Your task to perform on an android device: toggle translation in the chrome app Image 0: 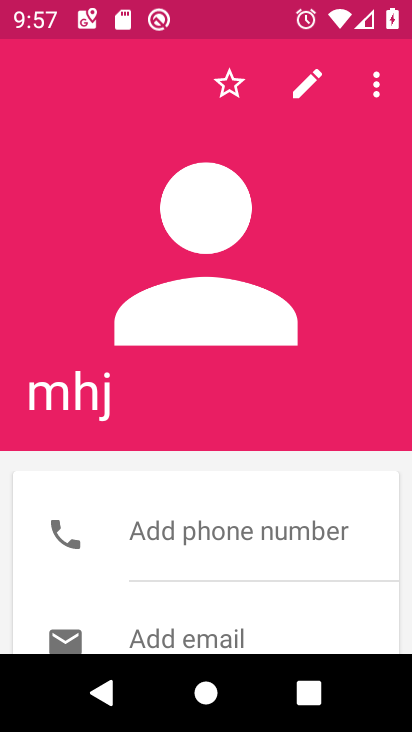
Step 0: press home button
Your task to perform on an android device: toggle translation in the chrome app Image 1: 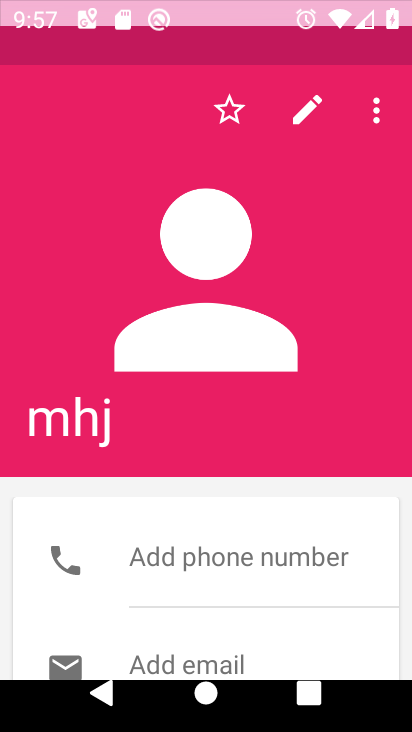
Step 1: drag from (285, 590) to (250, 53)
Your task to perform on an android device: toggle translation in the chrome app Image 2: 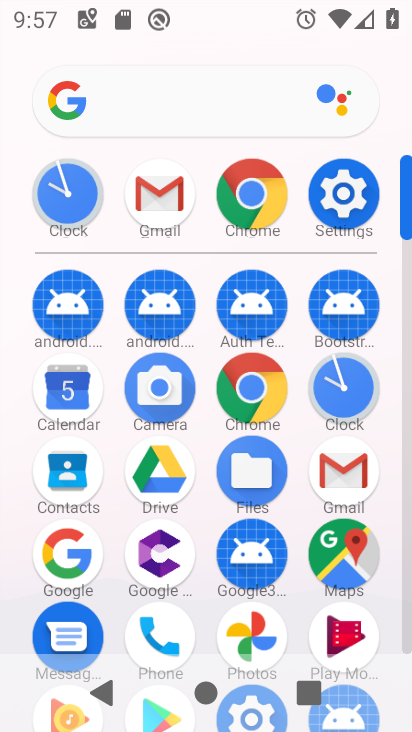
Step 2: click (214, 373)
Your task to perform on an android device: toggle translation in the chrome app Image 3: 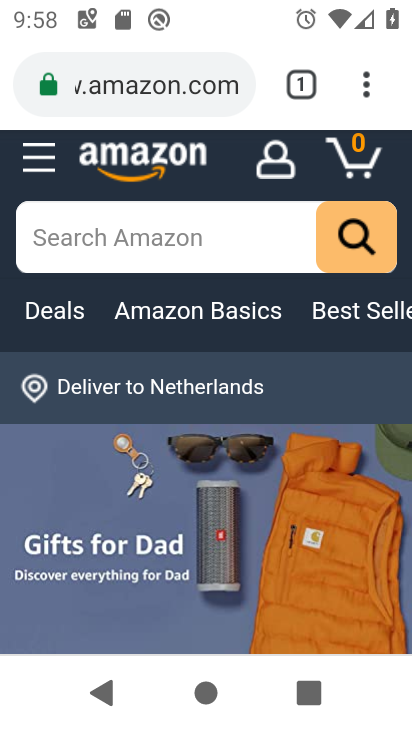
Step 3: click (375, 101)
Your task to perform on an android device: toggle translation in the chrome app Image 4: 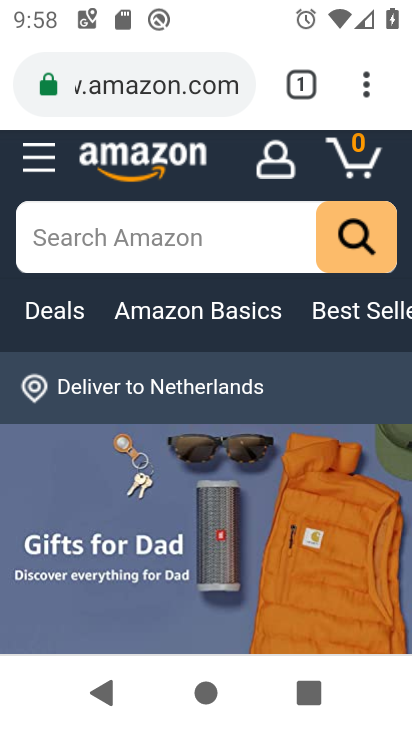
Step 4: click (367, 69)
Your task to perform on an android device: toggle translation in the chrome app Image 5: 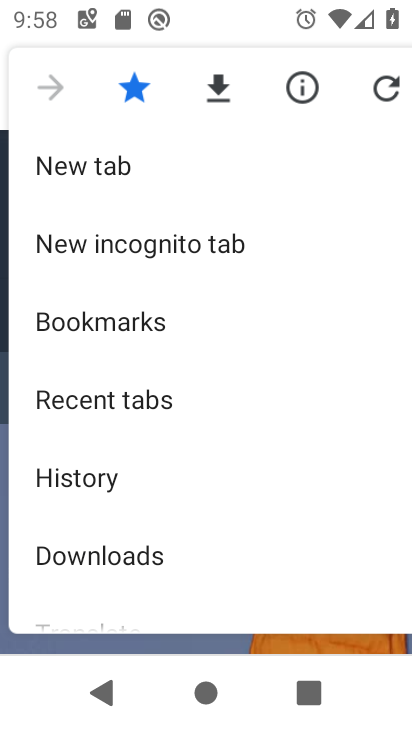
Step 5: drag from (142, 479) to (232, 115)
Your task to perform on an android device: toggle translation in the chrome app Image 6: 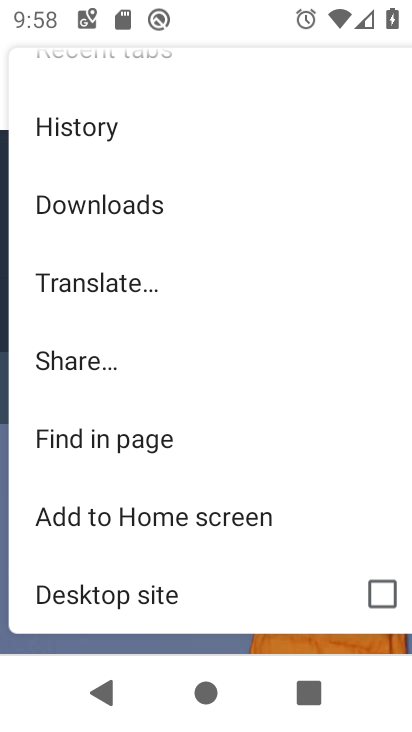
Step 6: drag from (198, 513) to (307, 103)
Your task to perform on an android device: toggle translation in the chrome app Image 7: 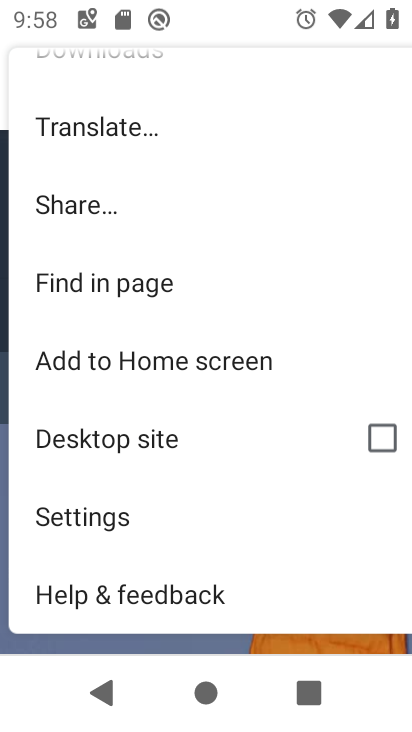
Step 7: click (113, 517)
Your task to perform on an android device: toggle translation in the chrome app Image 8: 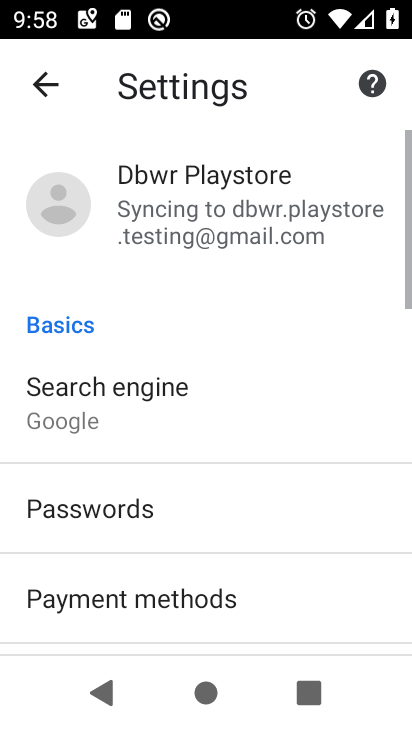
Step 8: drag from (199, 473) to (271, 64)
Your task to perform on an android device: toggle translation in the chrome app Image 9: 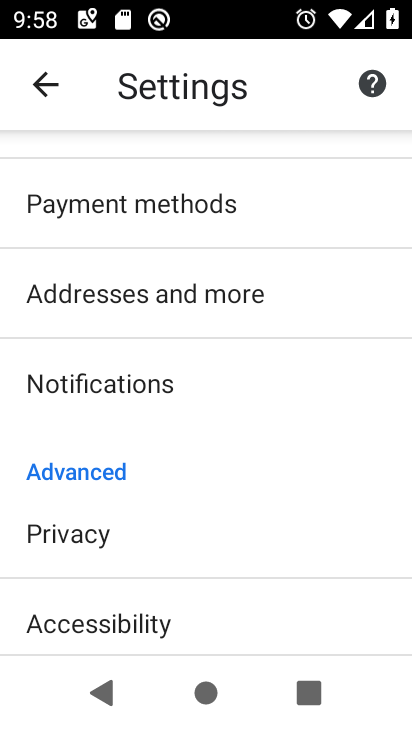
Step 9: drag from (137, 579) to (125, 76)
Your task to perform on an android device: toggle translation in the chrome app Image 10: 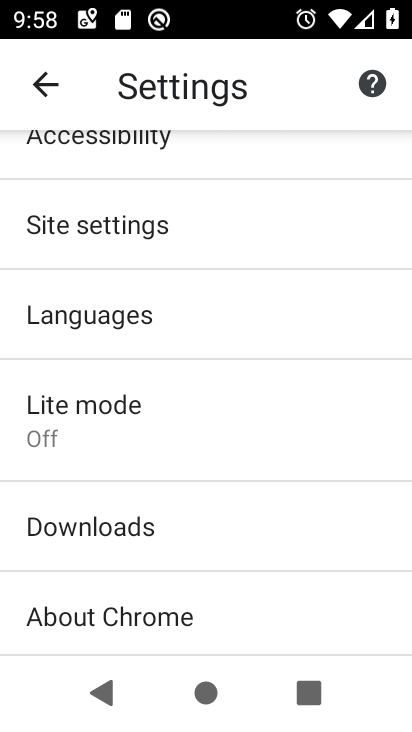
Step 10: click (149, 327)
Your task to perform on an android device: toggle translation in the chrome app Image 11: 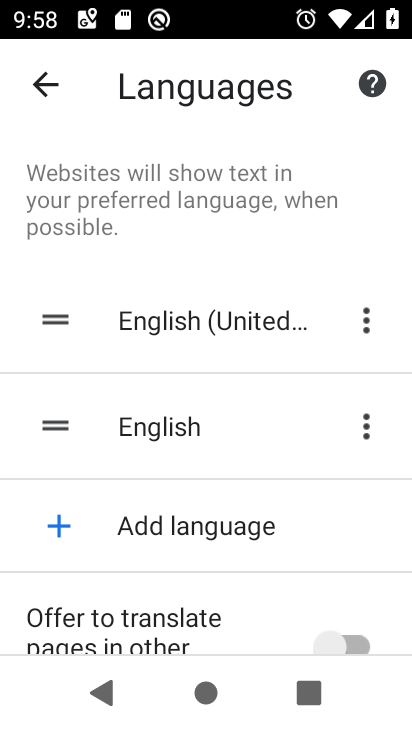
Step 11: click (306, 622)
Your task to perform on an android device: toggle translation in the chrome app Image 12: 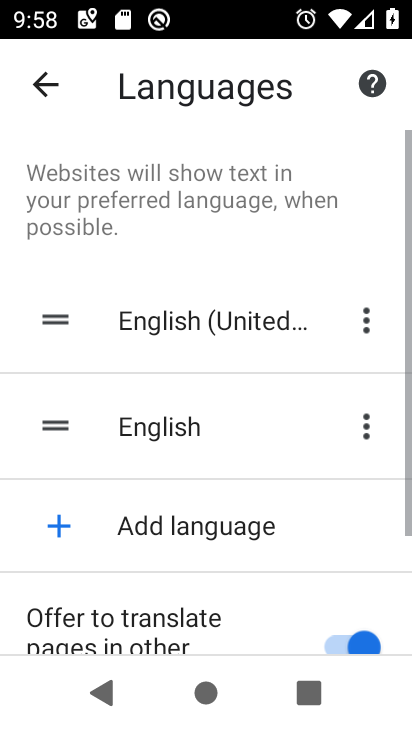
Step 12: task complete